Your task to perform on an android device: check storage Image 0: 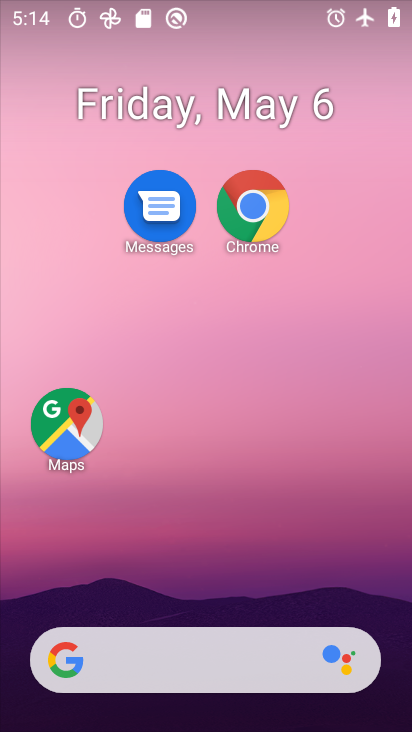
Step 0: drag from (220, 596) to (207, 161)
Your task to perform on an android device: check storage Image 1: 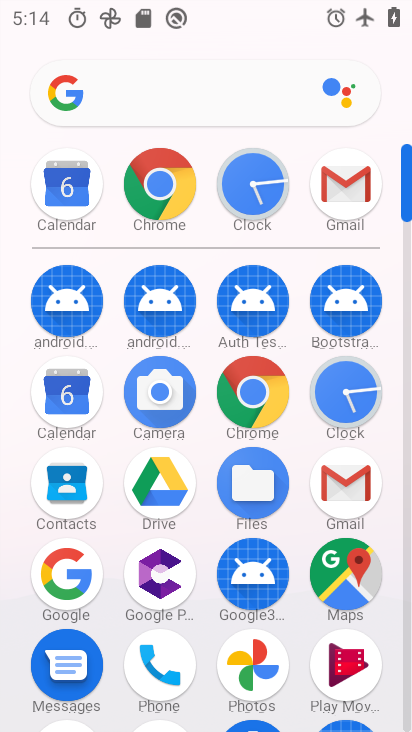
Step 1: drag from (194, 637) to (190, 299)
Your task to perform on an android device: check storage Image 2: 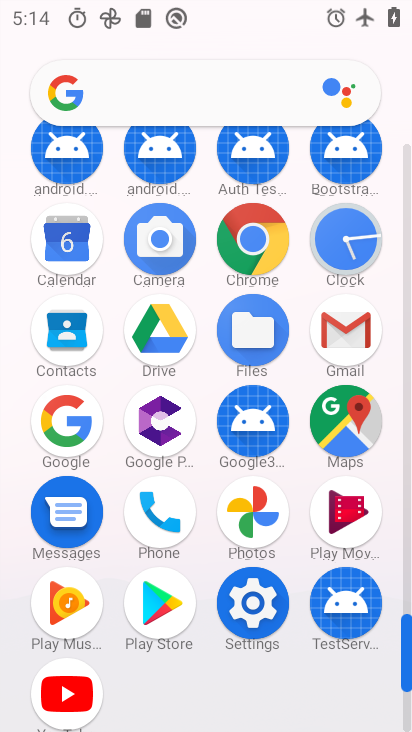
Step 2: click (263, 595)
Your task to perform on an android device: check storage Image 3: 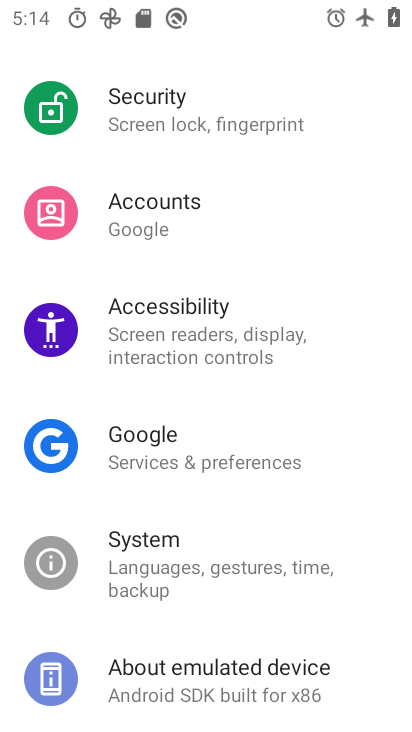
Step 3: drag from (169, 685) to (171, 385)
Your task to perform on an android device: check storage Image 4: 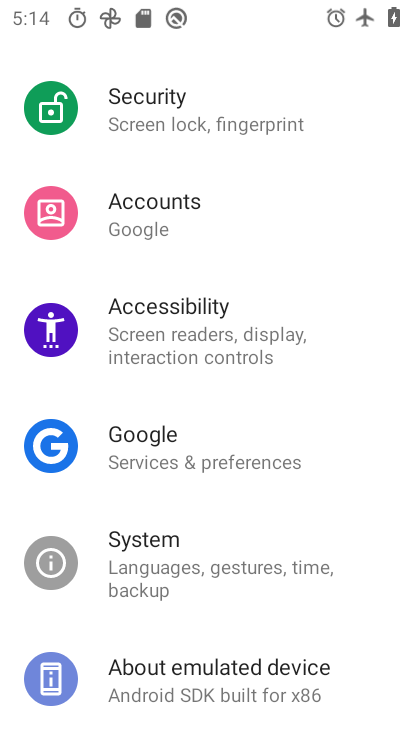
Step 4: drag from (225, 103) to (225, 498)
Your task to perform on an android device: check storage Image 5: 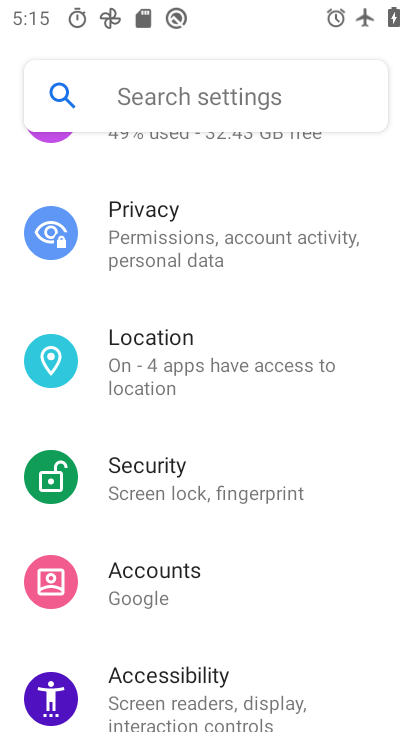
Step 5: drag from (252, 207) to (254, 565)
Your task to perform on an android device: check storage Image 6: 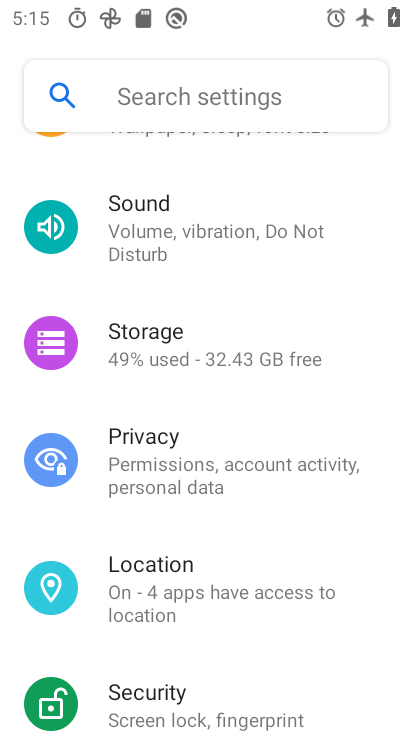
Step 6: drag from (215, 172) to (215, 518)
Your task to perform on an android device: check storage Image 7: 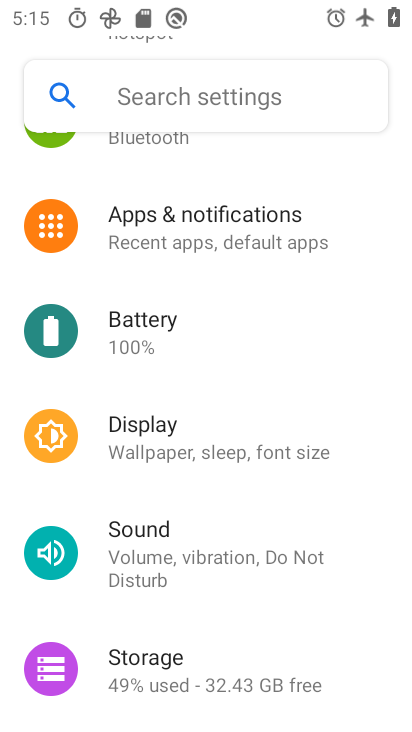
Step 7: click (170, 667)
Your task to perform on an android device: check storage Image 8: 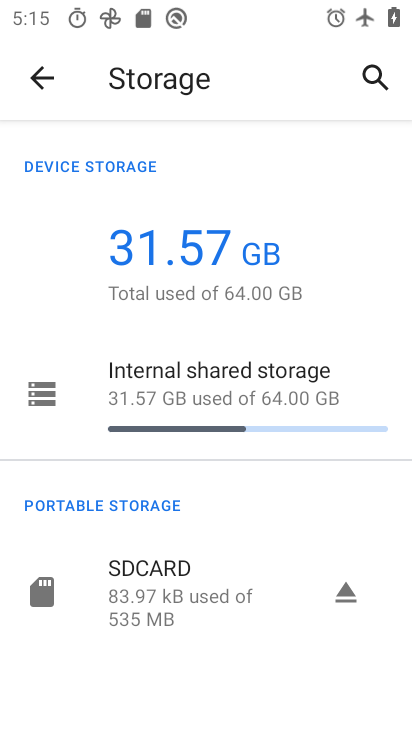
Step 8: task complete